Your task to perform on an android device: Search for sushi restaurants on Maps Image 0: 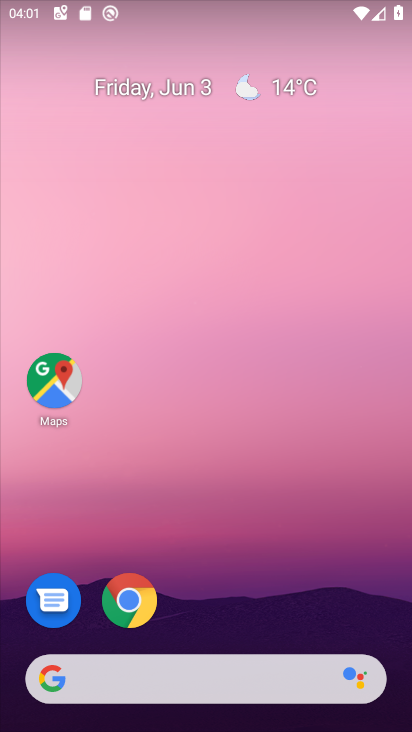
Step 0: click (63, 392)
Your task to perform on an android device: Search for sushi restaurants on Maps Image 1: 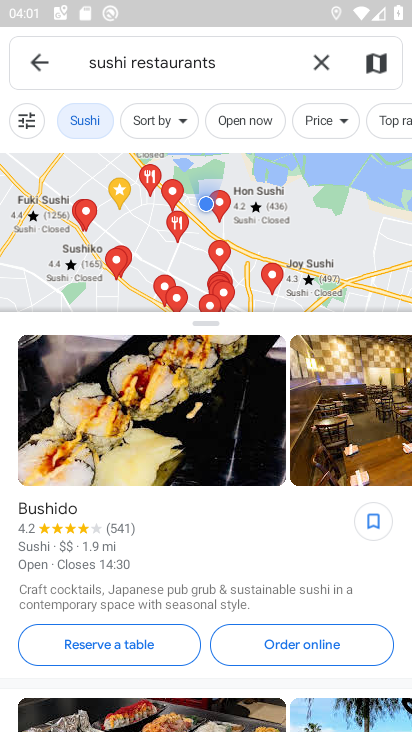
Step 1: task complete